Your task to perform on an android device: What's the weather? Image 0: 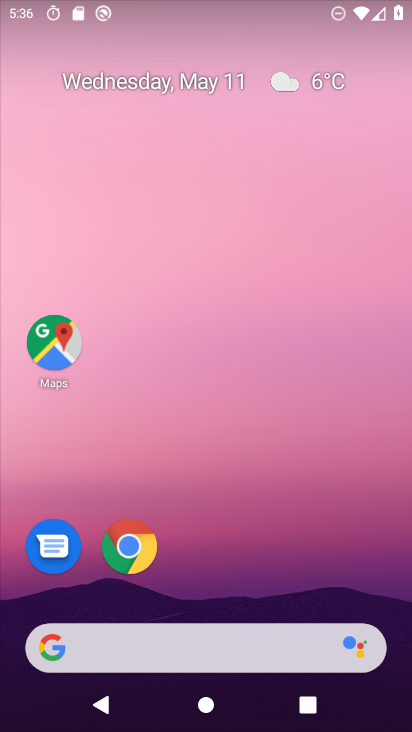
Step 0: drag from (201, 563) to (198, 328)
Your task to perform on an android device: What's the weather? Image 1: 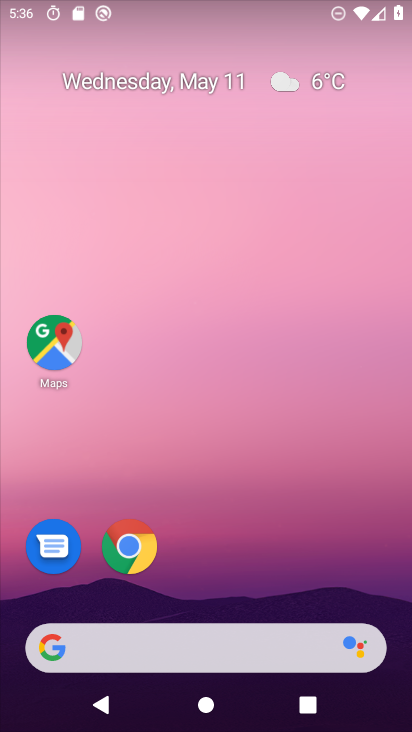
Step 1: drag from (221, 601) to (230, 194)
Your task to perform on an android device: What's the weather? Image 2: 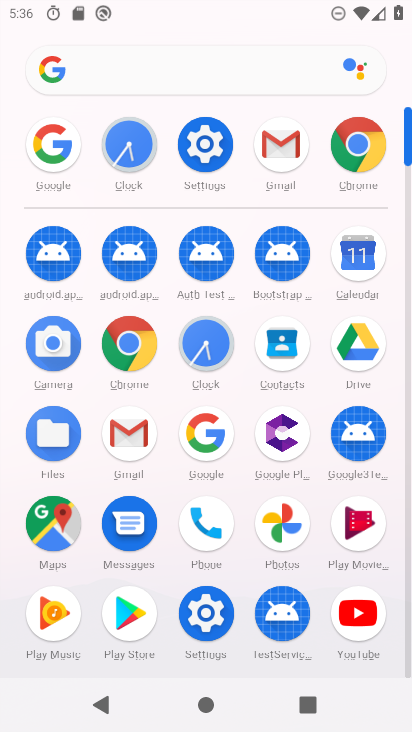
Step 2: click (202, 435)
Your task to perform on an android device: What's the weather? Image 3: 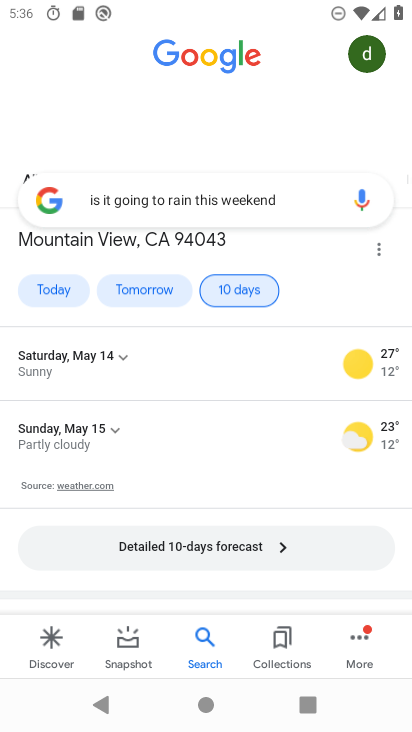
Step 3: click (36, 289)
Your task to perform on an android device: What's the weather? Image 4: 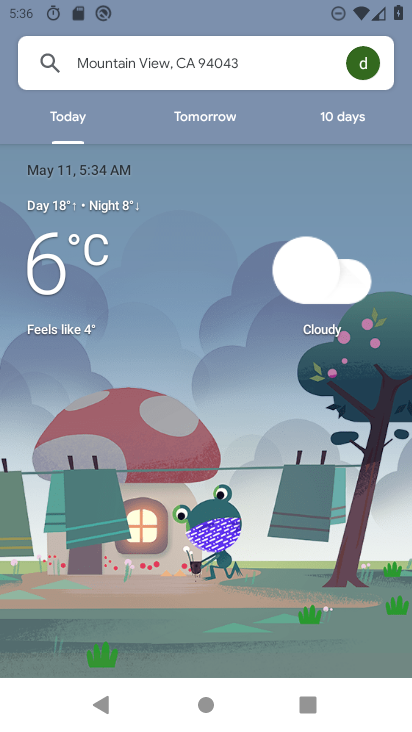
Step 4: task complete